Your task to perform on an android device: move an email to a new category in the gmail app Image 0: 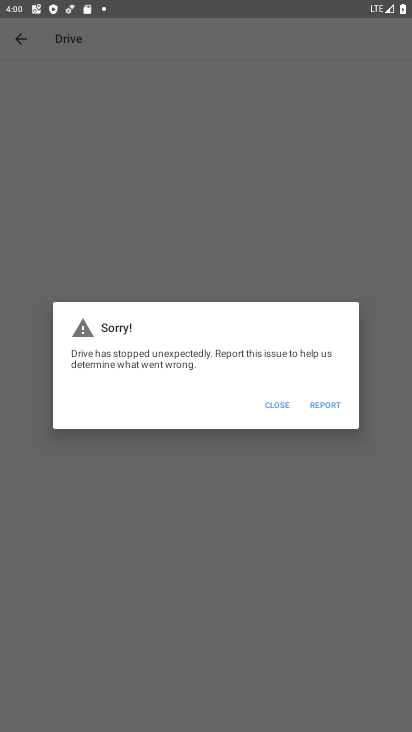
Step 0: press home button
Your task to perform on an android device: move an email to a new category in the gmail app Image 1: 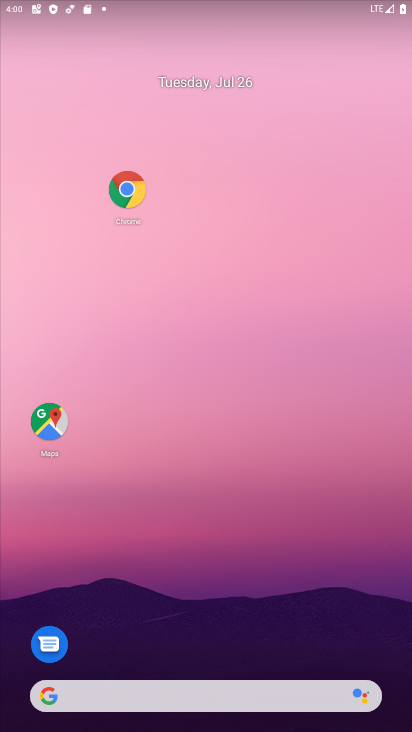
Step 1: drag from (156, 665) to (199, 216)
Your task to perform on an android device: move an email to a new category in the gmail app Image 2: 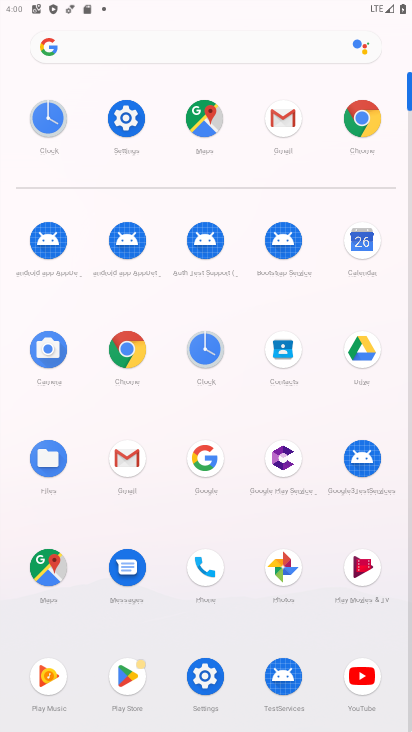
Step 2: click (286, 127)
Your task to perform on an android device: move an email to a new category in the gmail app Image 3: 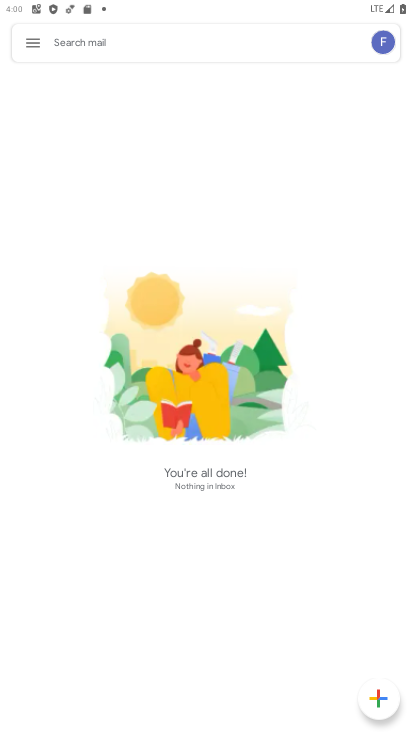
Step 3: task complete